Your task to perform on an android device: toggle airplane mode Image 0: 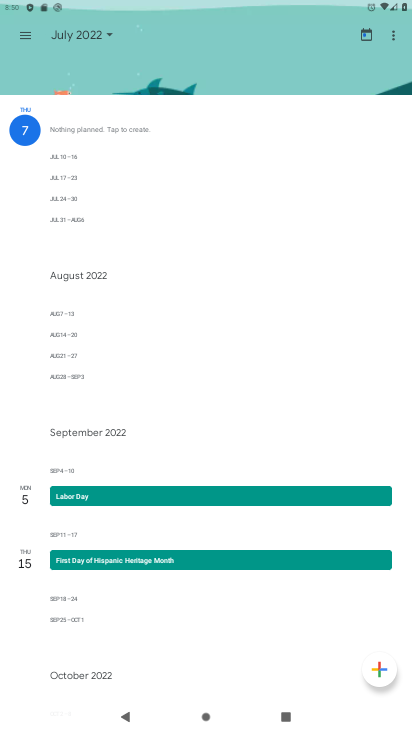
Step 0: press home button
Your task to perform on an android device: toggle airplane mode Image 1: 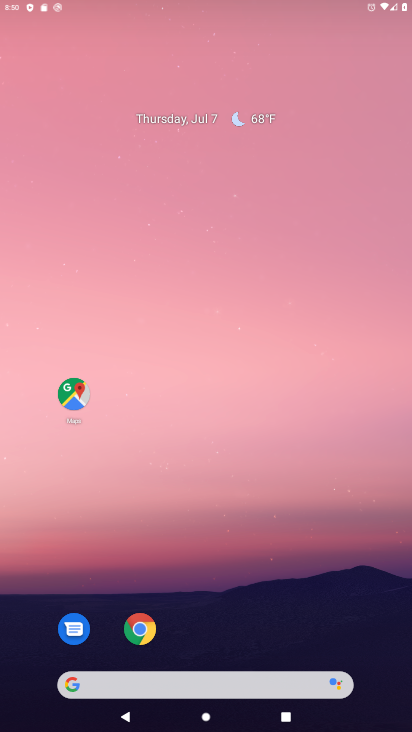
Step 1: drag from (250, 610) to (287, 82)
Your task to perform on an android device: toggle airplane mode Image 2: 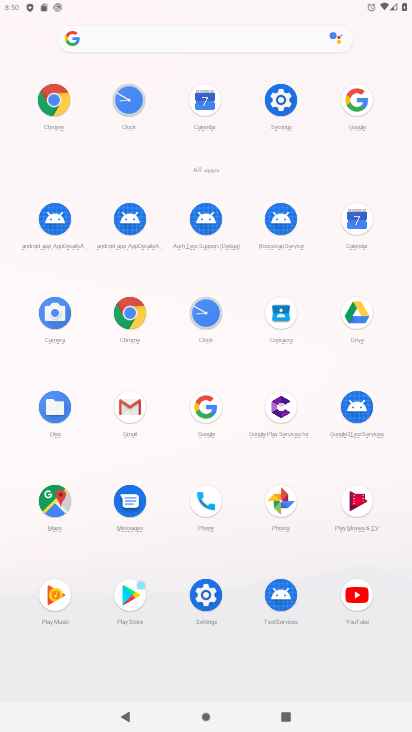
Step 2: click (284, 90)
Your task to perform on an android device: toggle airplane mode Image 3: 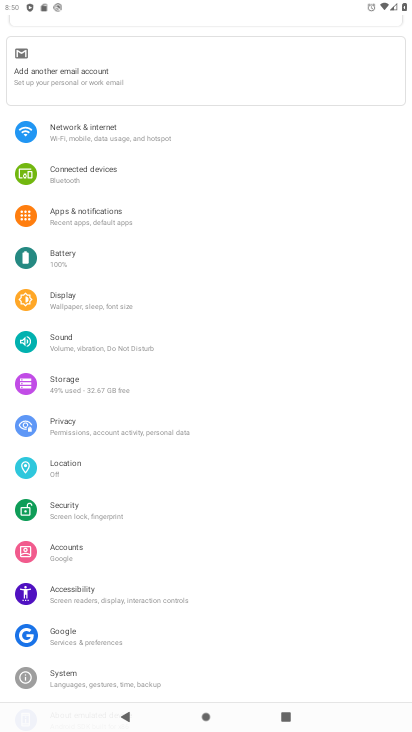
Step 3: click (110, 125)
Your task to perform on an android device: toggle airplane mode Image 4: 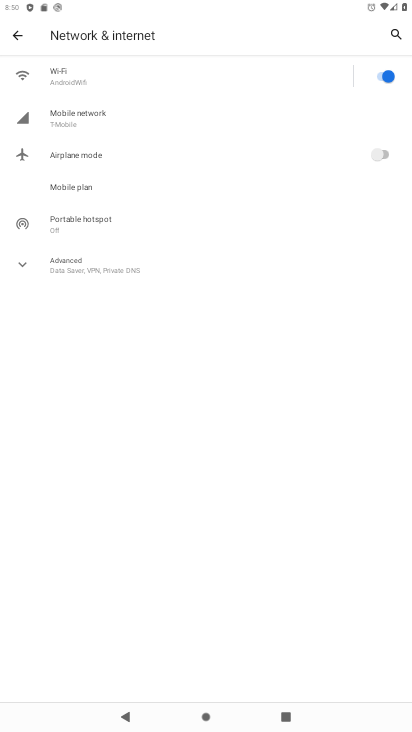
Step 4: click (384, 159)
Your task to perform on an android device: toggle airplane mode Image 5: 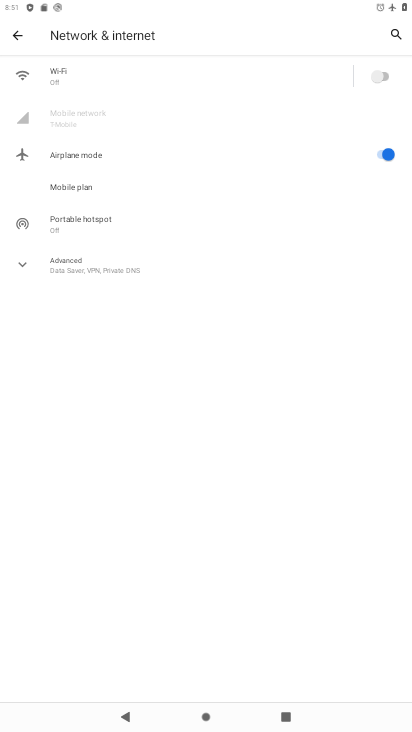
Step 5: task complete